Your task to perform on an android device: toggle notifications settings in the gmail app Image 0: 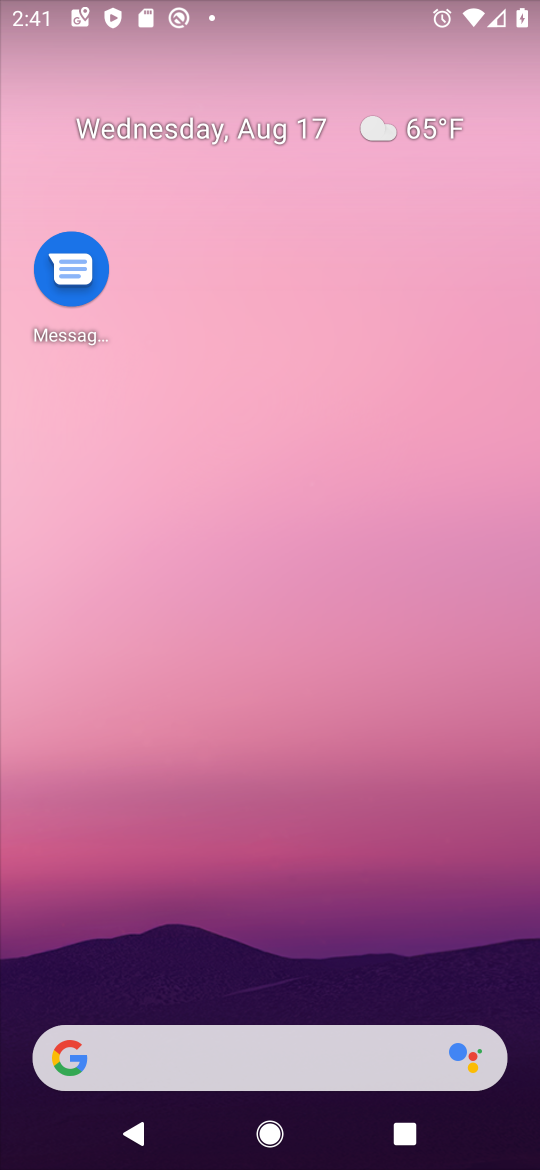
Step 0: drag from (248, 1006) to (415, 69)
Your task to perform on an android device: toggle notifications settings in the gmail app Image 1: 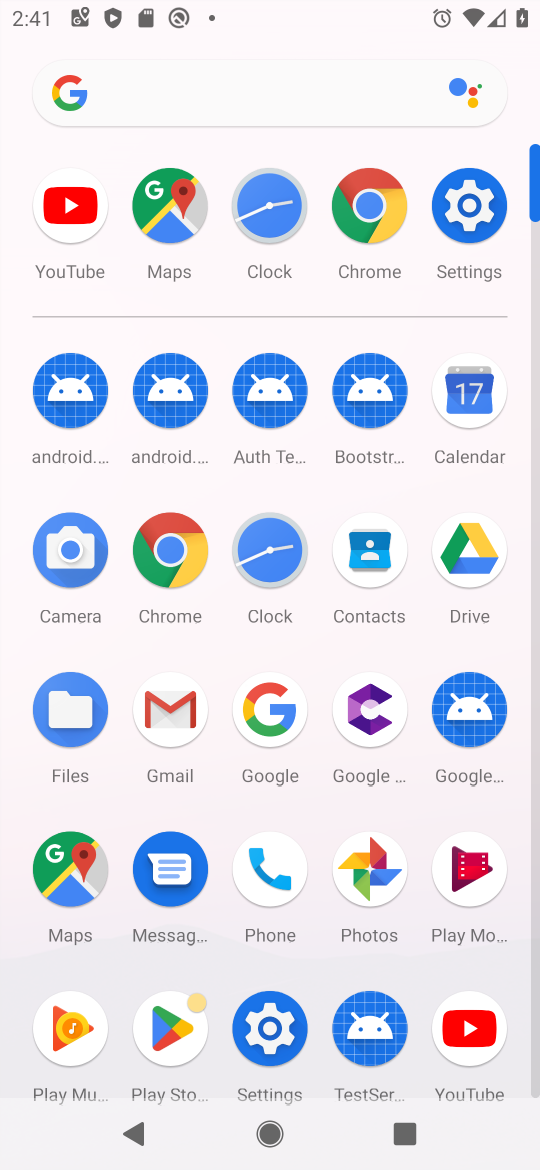
Step 1: click (151, 727)
Your task to perform on an android device: toggle notifications settings in the gmail app Image 2: 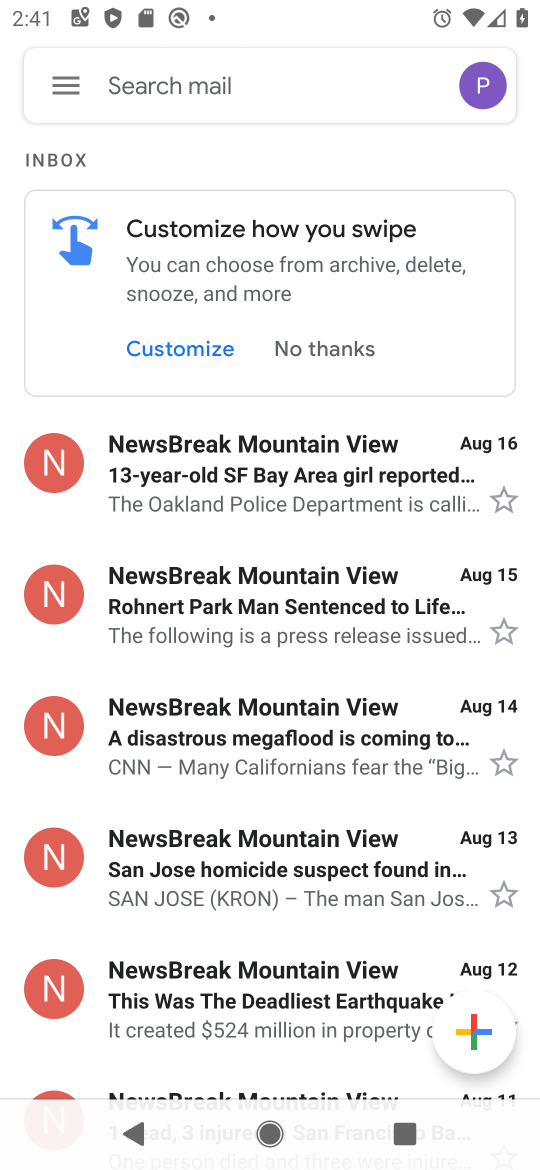
Step 2: click (58, 69)
Your task to perform on an android device: toggle notifications settings in the gmail app Image 3: 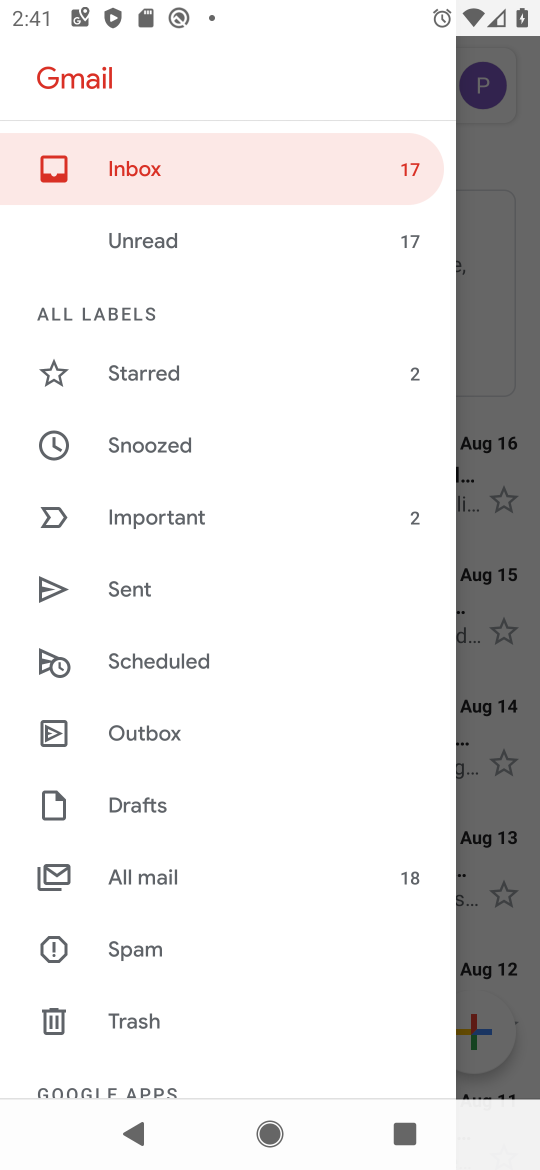
Step 3: drag from (198, 995) to (174, 240)
Your task to perform on an android device: toggle notifications settings in the gmail app Image 4: 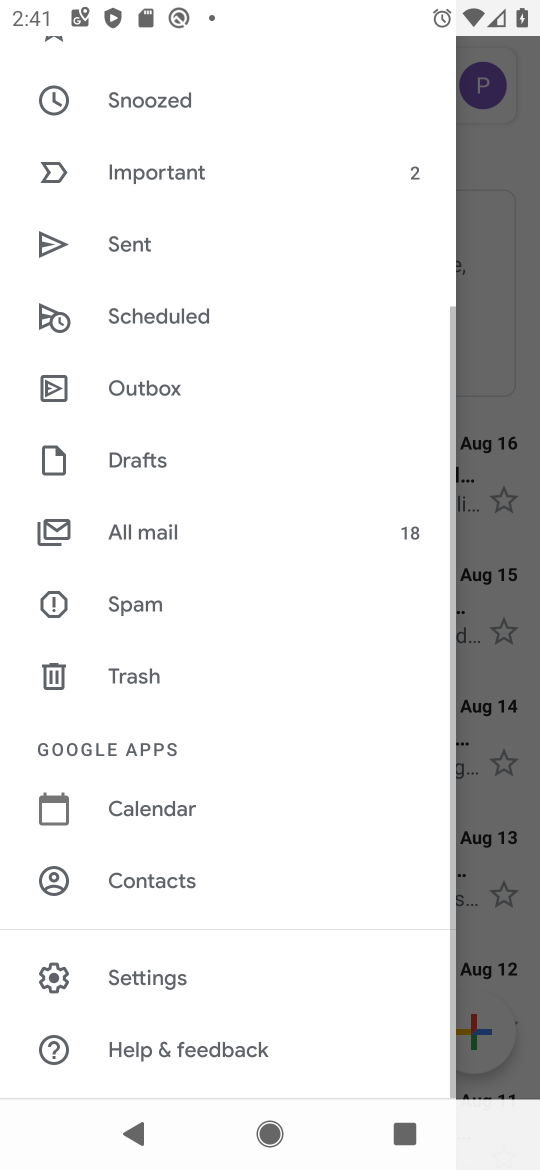
Step 4: click (150, 979)
Your task to perform on an android device: toggle notifications settings in the gmail app Image 5: 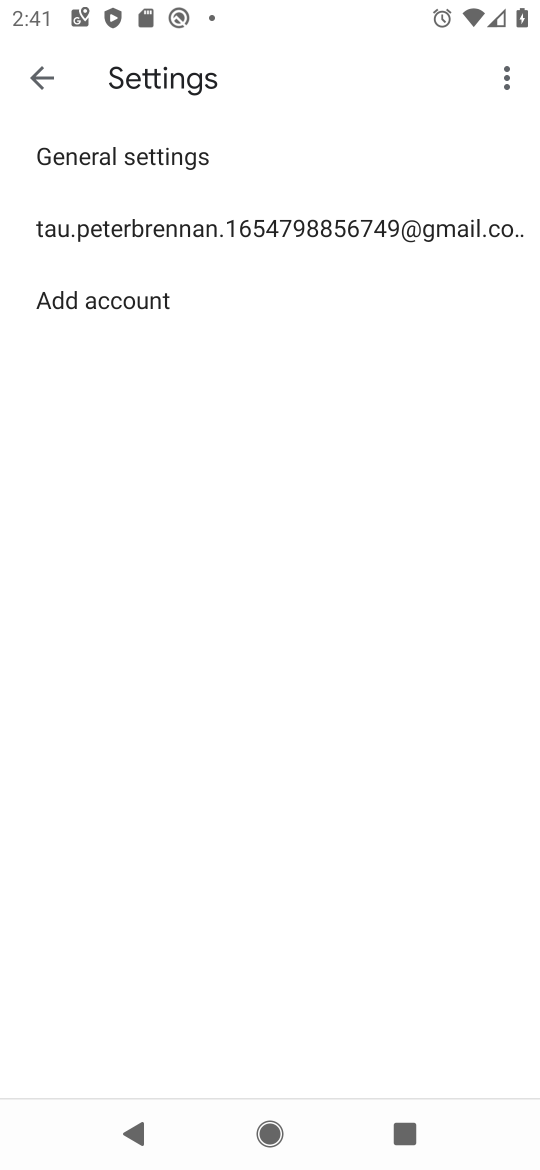
Step 5: click (63, 170)
Your task to perform on an android device: toggle notifications settings in the gmail app Image 6: 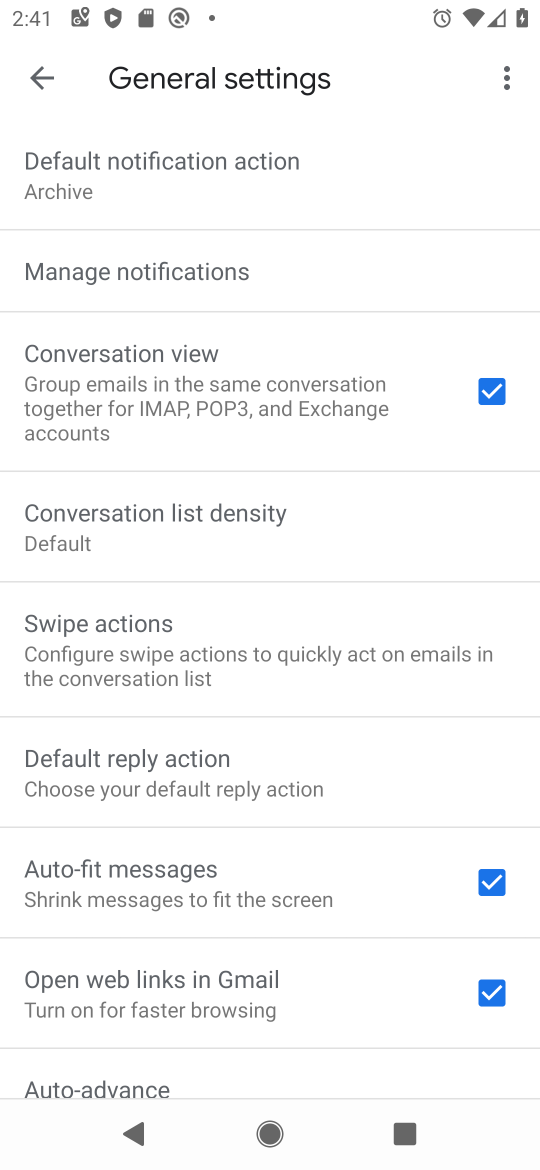
Step 6: click (95, 265)
Your task to perform on an android device: toggle notifications settings in the gmail app Image 7: 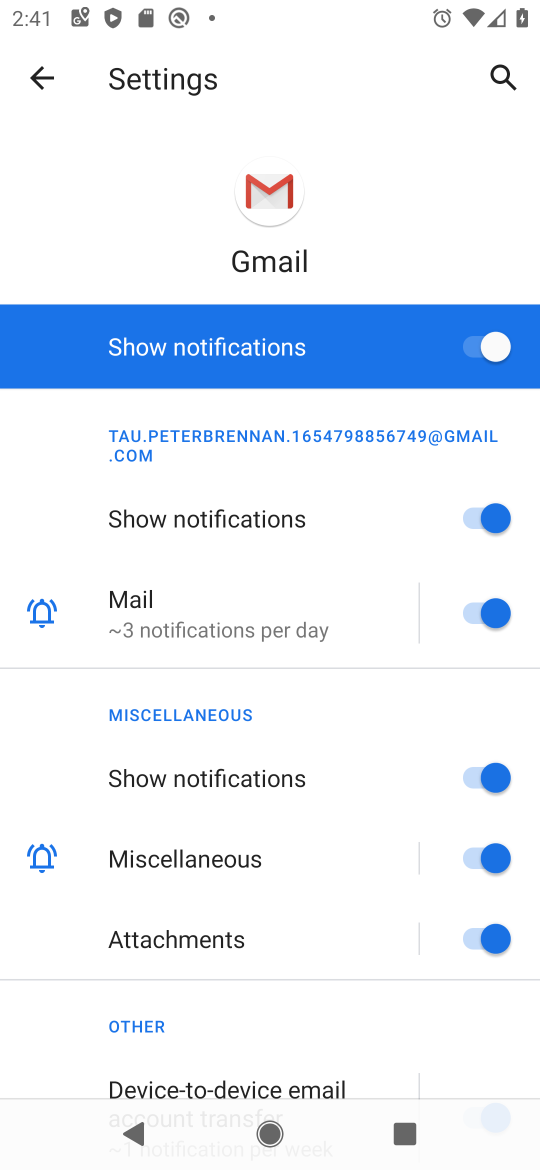
Step 7: click (463, 348)
Your task to perform on an android device: toggle notifications settings in the gmail app Image 8: 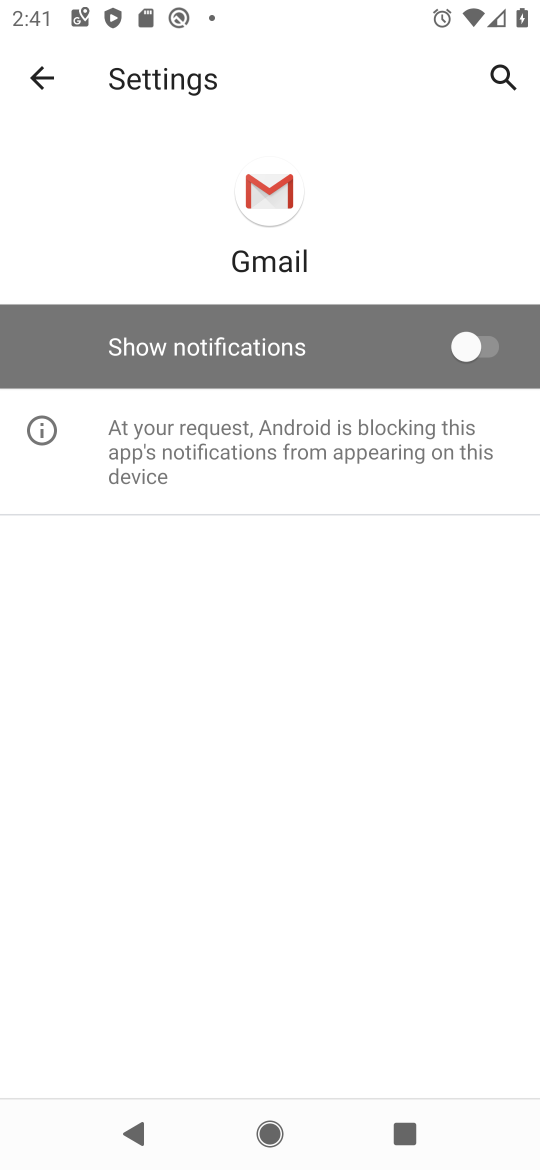
Step 8: task complete